Your task to perform on an android device: Go to Maps Image 0: 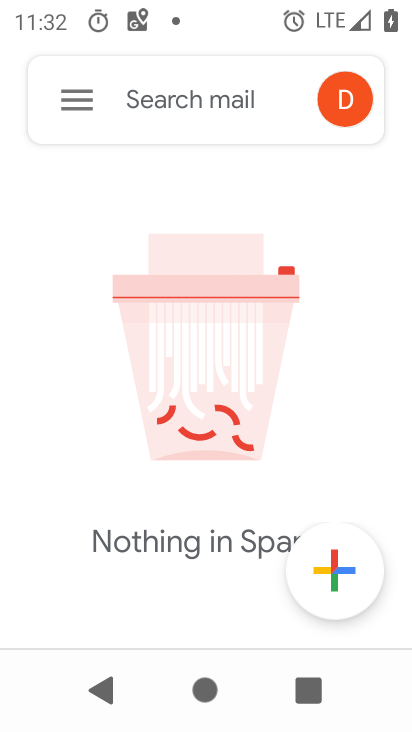
Step 0: press home button
Your task to perform on an android device: Go to Maps Image 1: 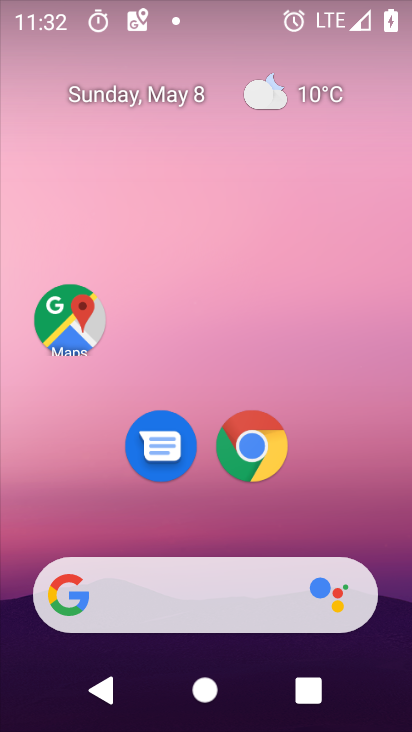
Step 1: click (63, 325)
Your task to perform on an android device: Go to Maps Image 2: 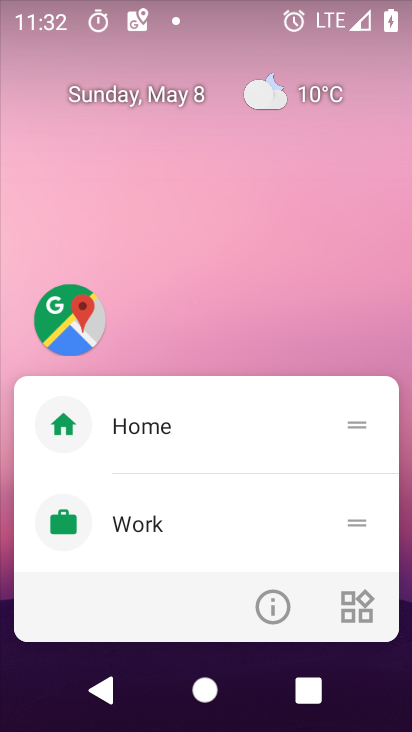
Step 2: click (70, 323)
Your task to perform on an android device: Go to Maps Image 3: 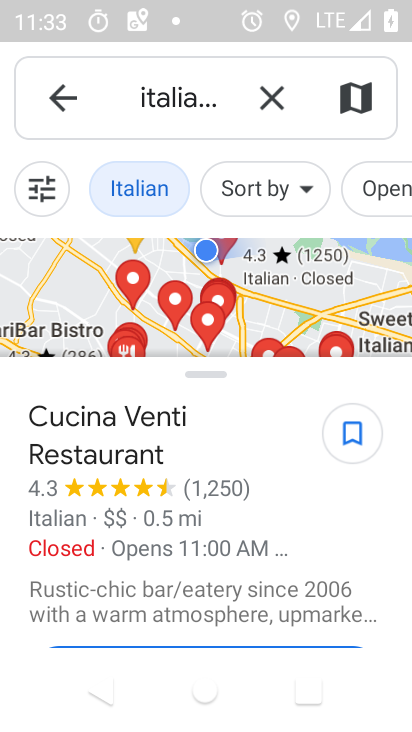
Step 3: task complete